Your task to perform on an android device: Do I have any events tomorrow? Image 0: 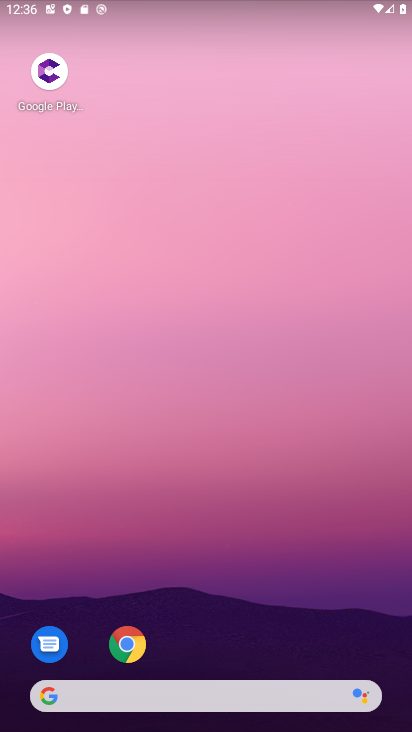
Step 0: drag from (200, 727) to (200, 143)
Your task to perform on an android device: Do I have any events tomorrow? Image 1: 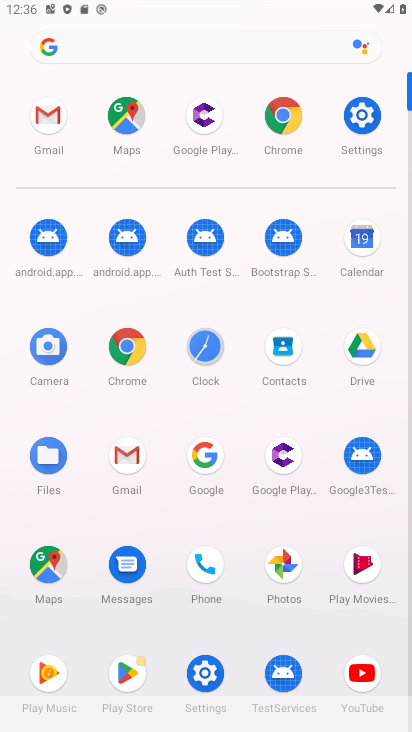
Step 1: click (362, 241)
Your task to perform on an android device: Do I have any events tomorrow? Image 2: 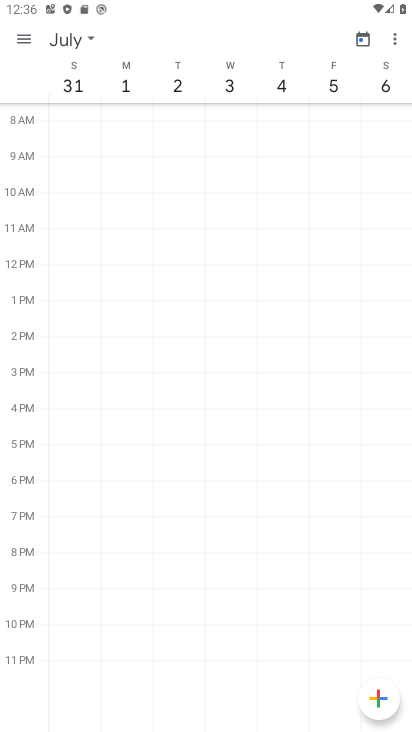
Step 2: click (92, 33)
Your task to perform on an android device: Do I have any events tomorrow? Image 3: 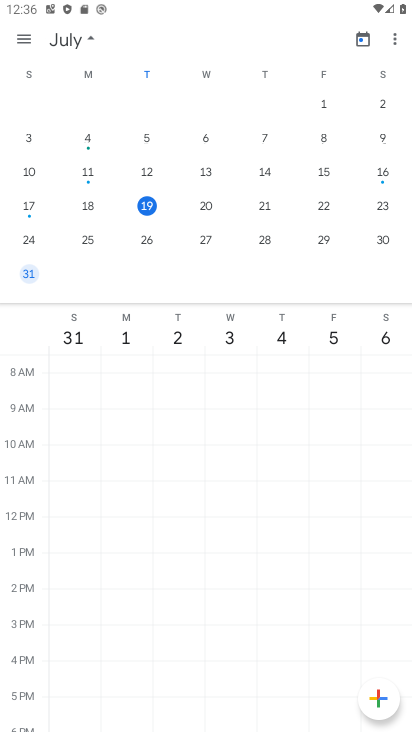
Step 3: click (206, 202)
Your task to perform on an android device: Do I have any events tomorrow? Image 4: 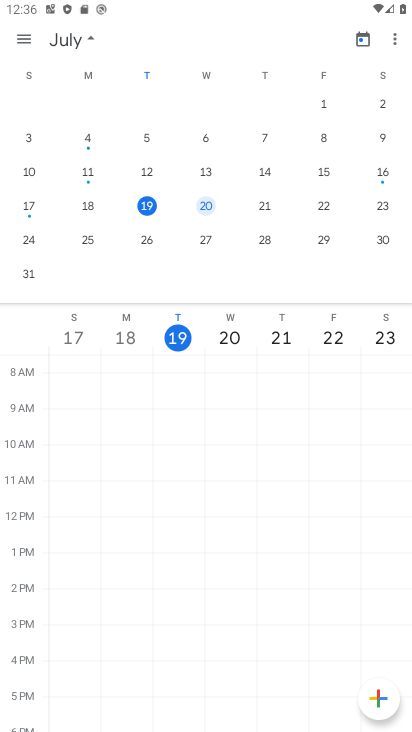
Step 4: click (205, 201)
Your task to perform on an android device: Do I have any events tomorrow? Image 5: 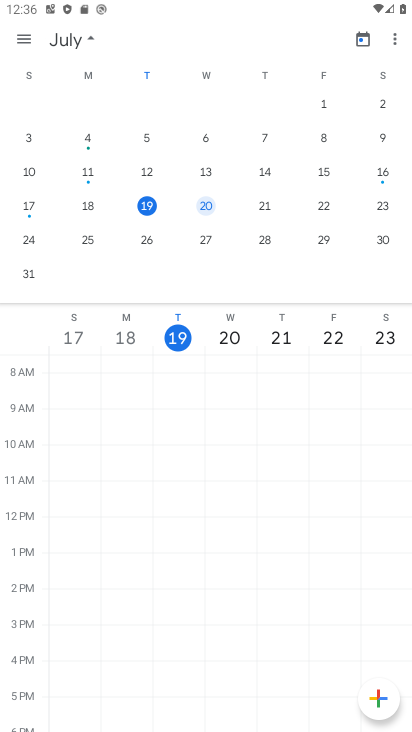
Step 5: click (183, 333)
Your task to perform on an android device: Do I have any events tomorrow? Image 6: 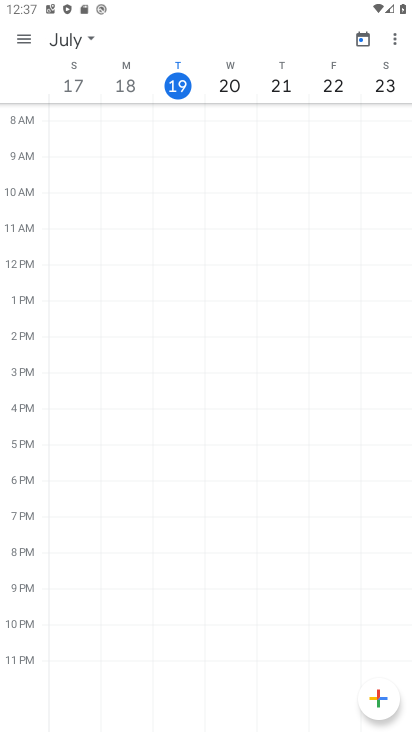
Step 6: click (172, 88)
Your task to perform on an android device: Do I have any events tomorrow? Image 7: 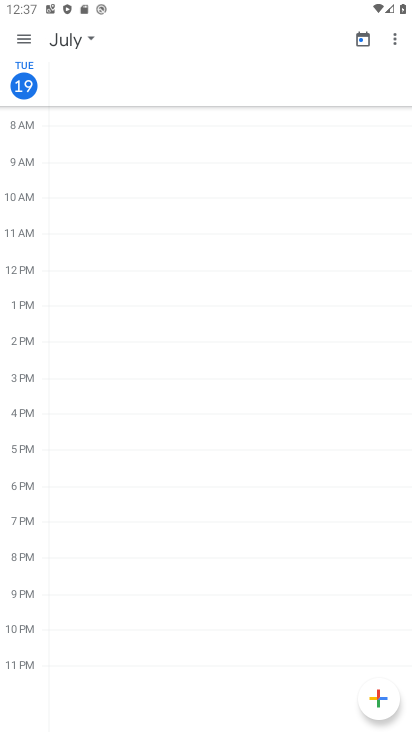
Step 7: task complete